Your task to perform on an android device: move a message to another label in the gmail app Image 0: 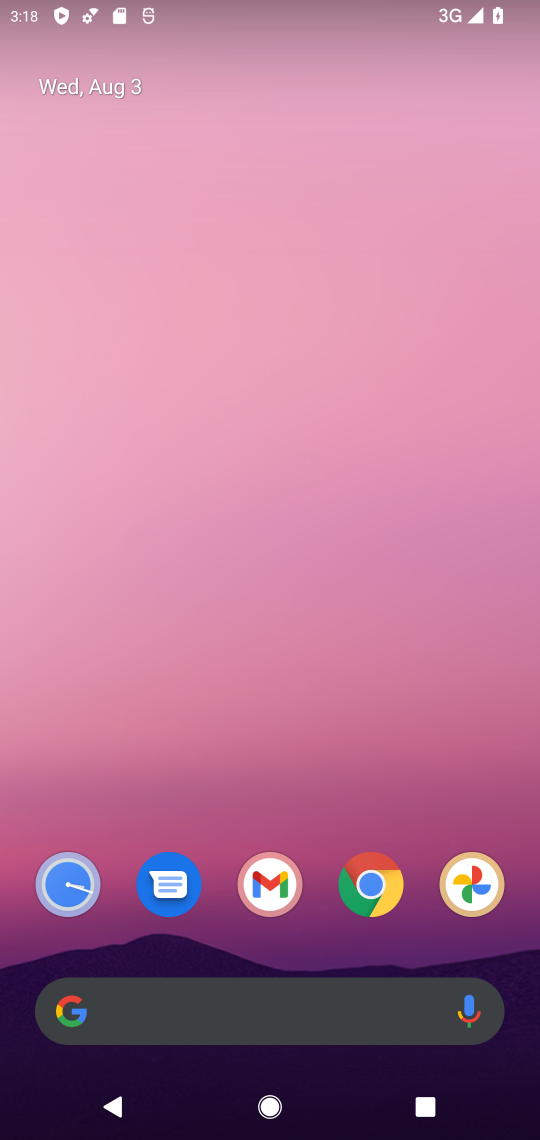
Step 0: click (277, 919)
Your task to perform on an android device: move a message to another label in the gmail app Image 1: 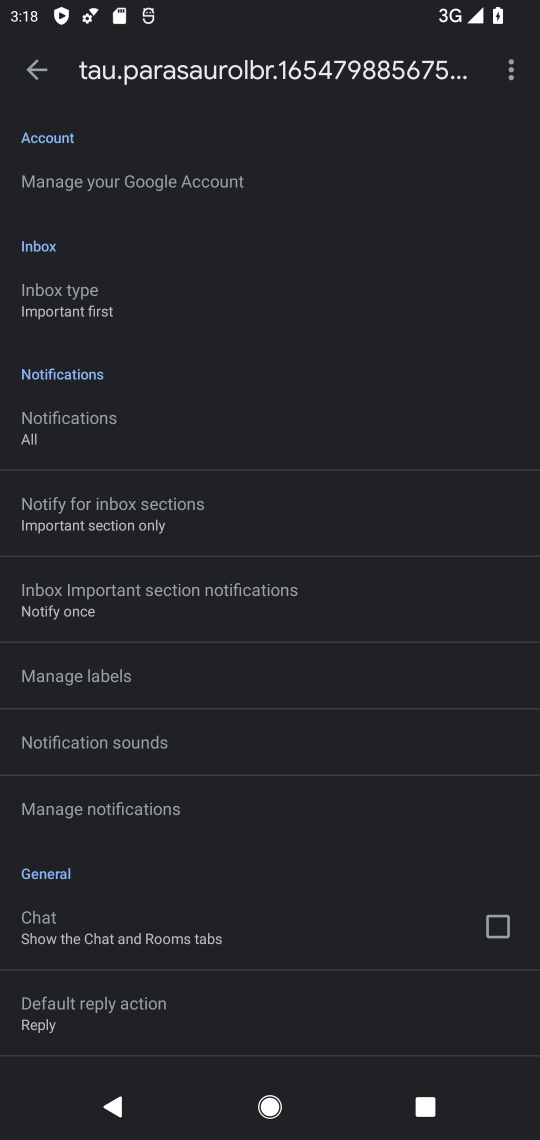
Step 1: task complete